Your task to perform on an android device: Go to location settings Image 0: 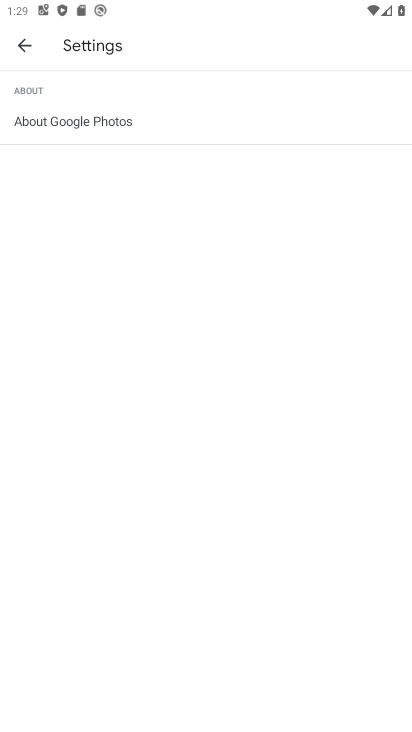
Step 0: press home button
Your task to perform on an android device: Go to location settings Image 1: 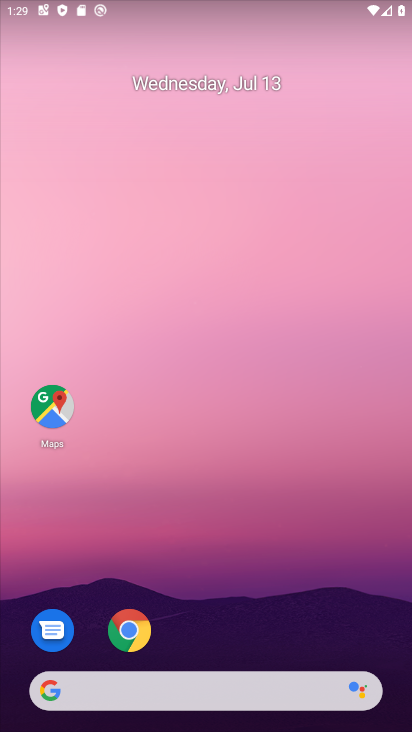
Step 1: drag from (343, 633) to (342, 180)
Your task to perform on an android device: Go to location settings Image 2: 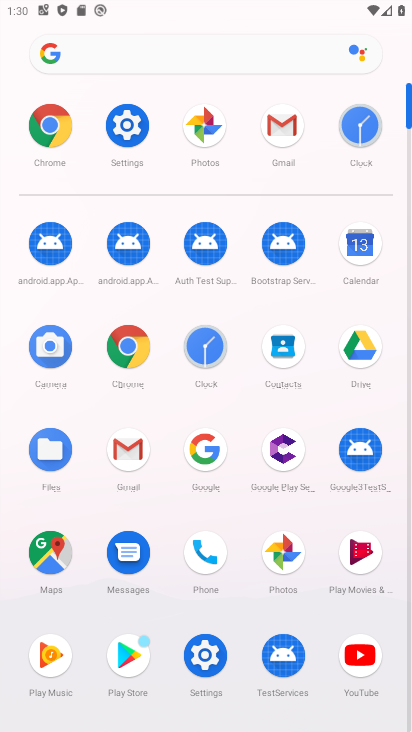
Step 2: click (127, 132)
Your task to perform on an android device: Go to location settings Image 3: 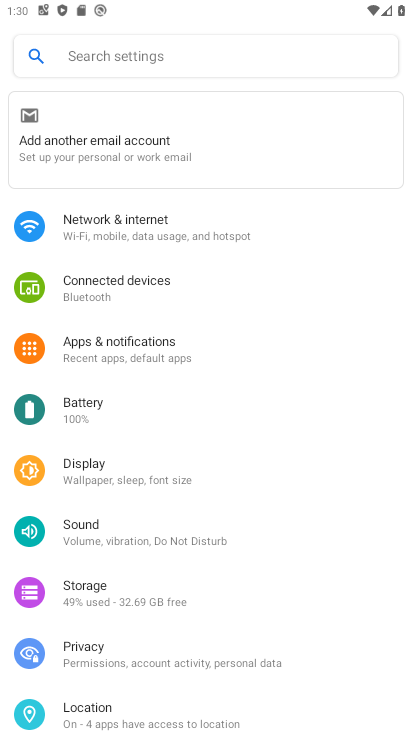
Step 3: drag from (333, 434) to (323, 297)
Your task to perform on an android device: Go to location settings Image 4: 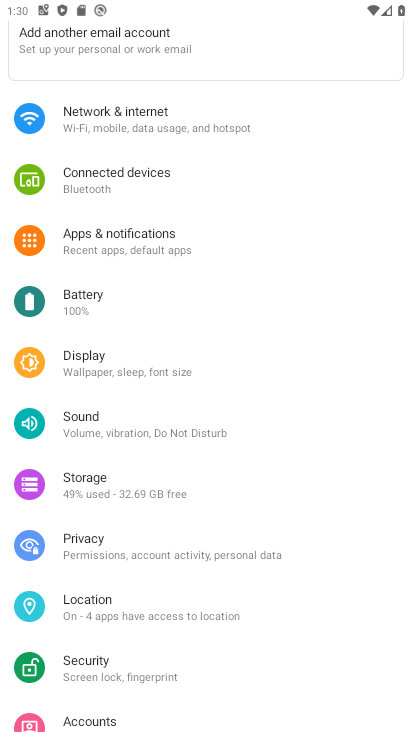
Step 4: drag from (327, 451) to (321, 255)
Your task to perform on an android device: Go to location settings Image 5: 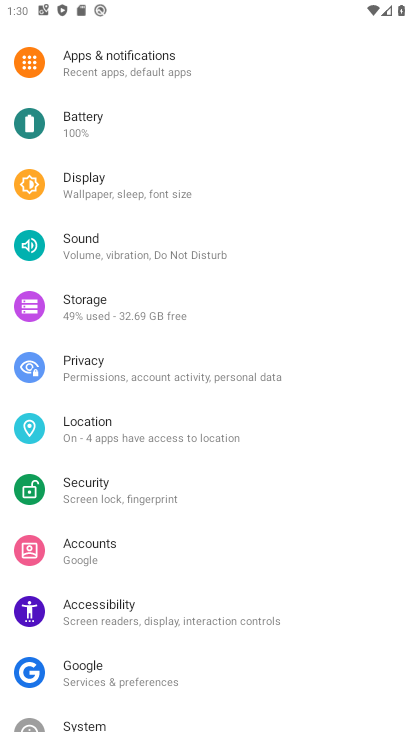
Step 5: drag from (325, 453) to (329, 200)
Your task to perform on an android device: Go to location settings Image 6: 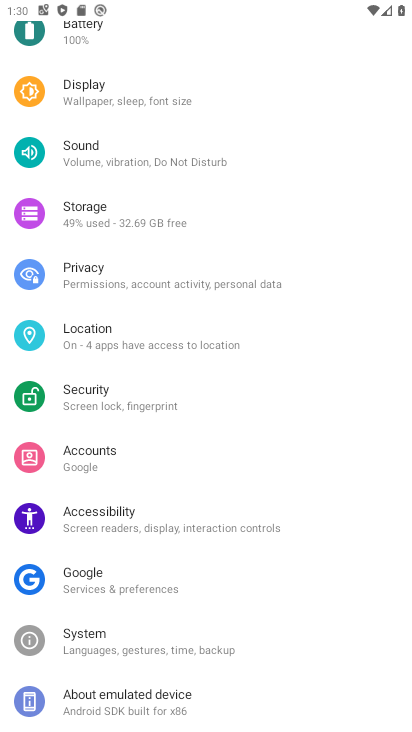
Step 6: click (316, 344)
Your task to perform on an android device: Go to location settings Image 7: 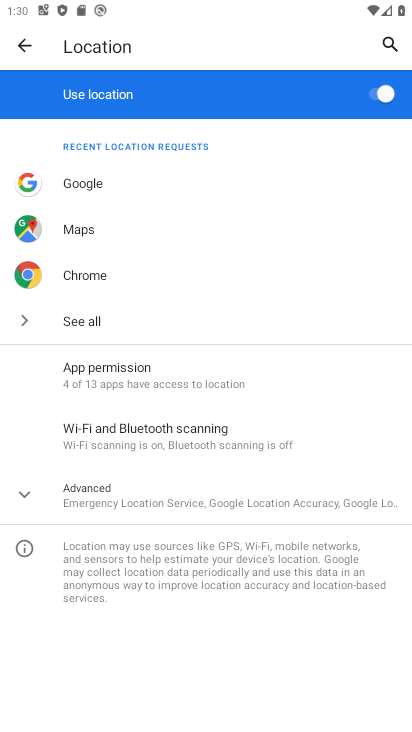
Step 7: task complete